Your task to perform on an android device: Is it going to rain tomorrow? Image 0: 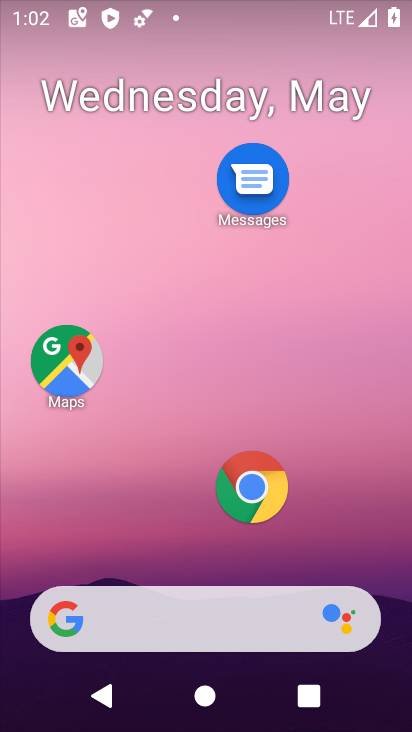
Step 0: click (159, 632)
Your task to perform on an android device: Is it going to rain tomorrow? Image 1: 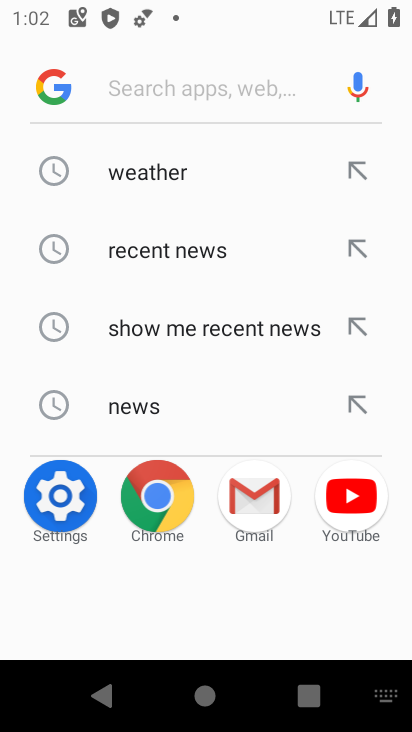
Step 1: click (162, 168)
Your task to perform on an android device: Is it going to rain tomorrow? Image 2: 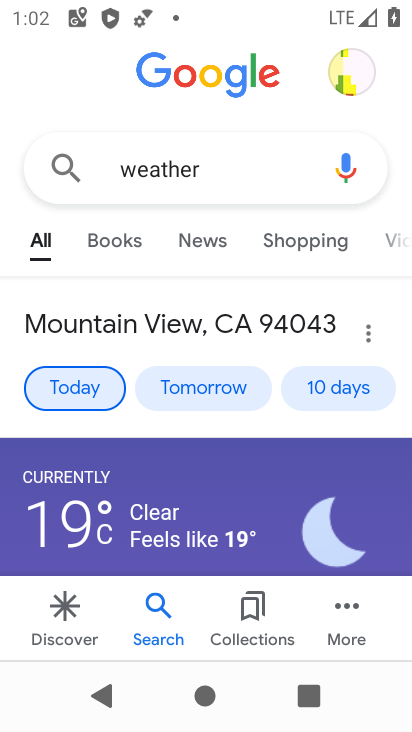
Step 2: drag from (200, 456) to (239, 321)
Your task to perform on an android device: Is it going to rain tomorrow? Image 3: 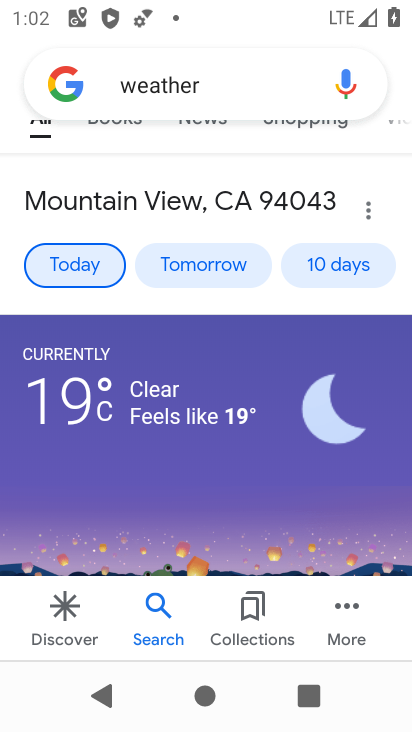
Step 3: click (236, 271)
Your task to perform on an android device: Is it going to rain tomorrow? Image 4: 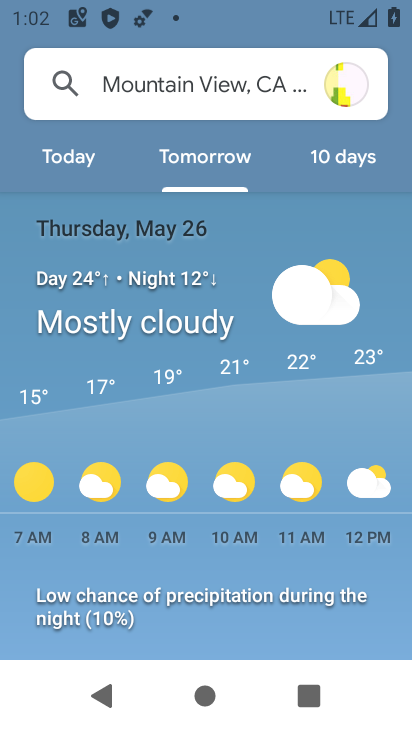
Step 4: task complete